Your task to perform on an android device: allow notifications from all sites in the chrome app Image 0: 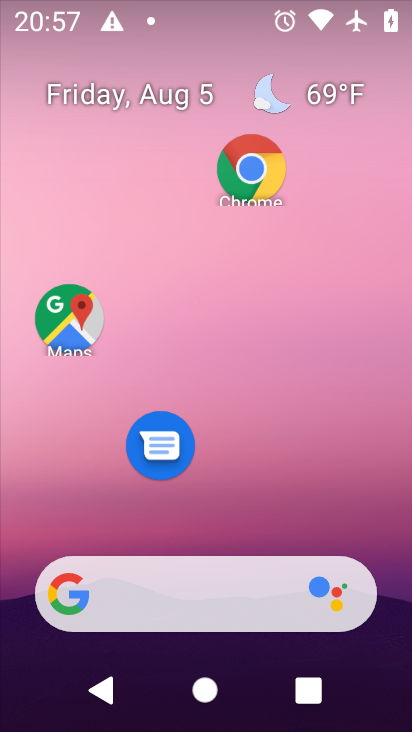
Step 0: click (269, 184)
Your task to perform on an android device: allow notifications from all sites in the chrome app Image 1: 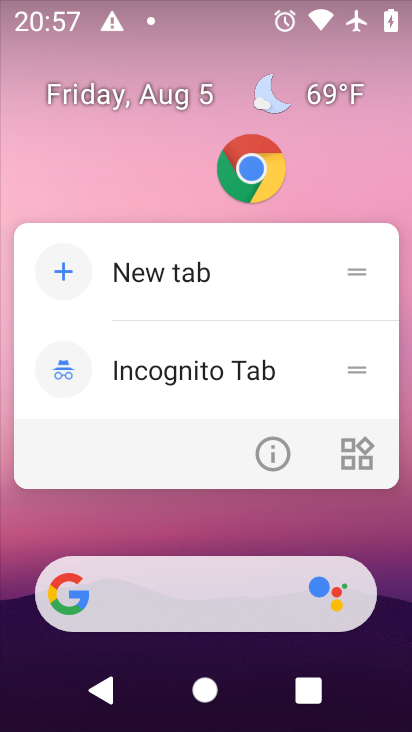
Step 1: click (269, 183)
Your task to perform on an android device: allow notifications from all sites in the chrome app Image 2: 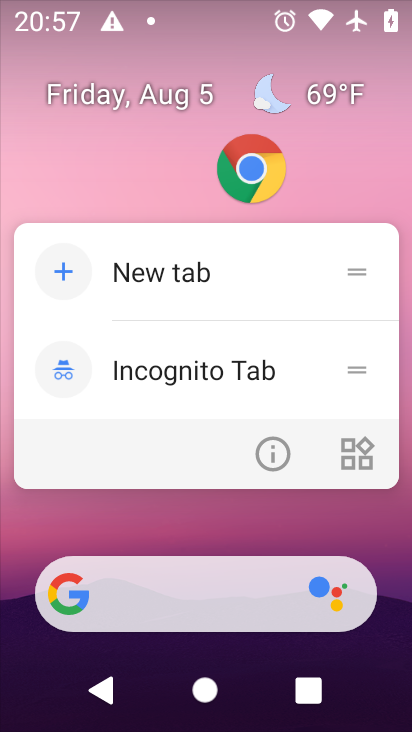
Step 2: click (247, 165)
Your task to perform on an android device: allow notifications from all sites in the chrome app Image 3: 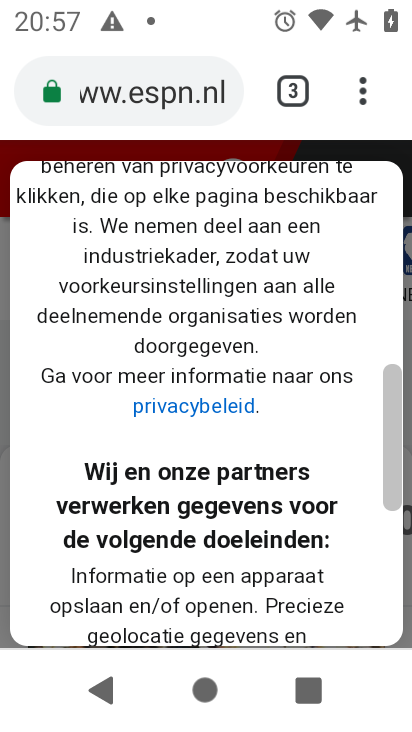
Step 3: click (359, 91)
Your task to perform on an android device: allow notifications from all sites in the chrome app Image 4: 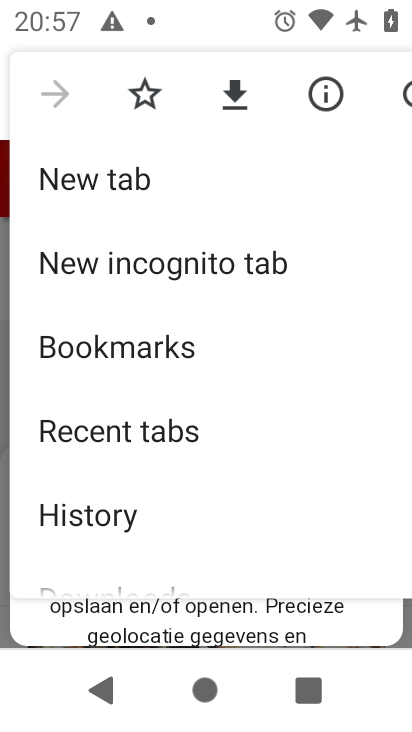
Step 4: drag from (160, 570) to (181, 229)
Your task to perform on an android device: allow notifications from all sites in the chrome app Image 5: 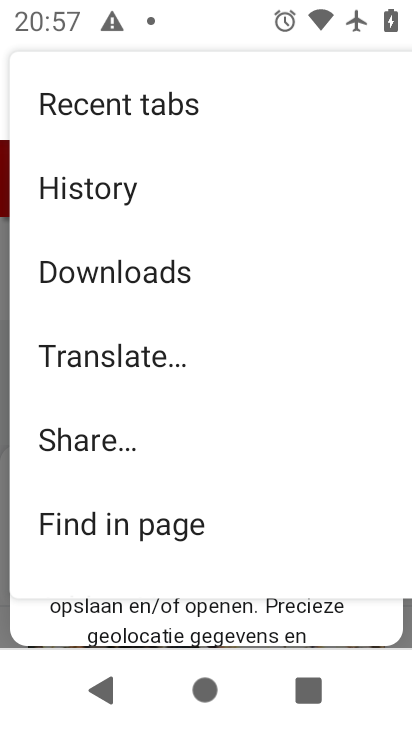
Step 5: drag from (168, 515) to (219, 214)
Your task to perform on an android device: allow notifications from all sites in the chrome app Image 6: 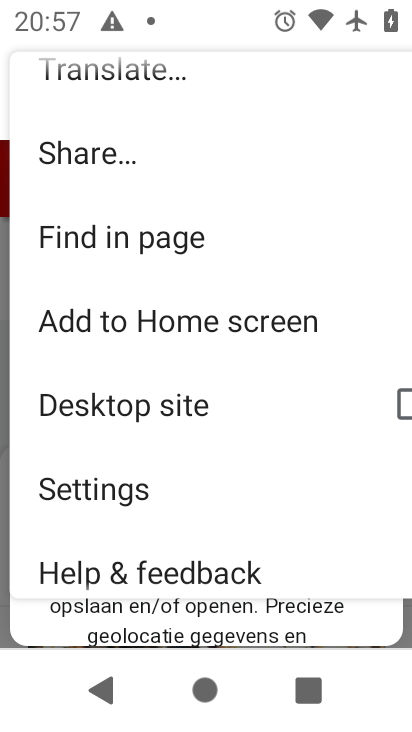
Step 6: click (144, 483)
Your task to perform on an android device: allow notifications from all sites in the chrome app Image 7: 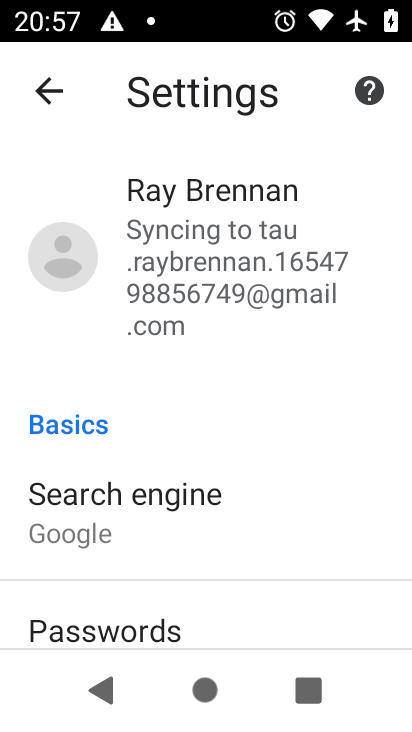
Step 7: drag from (196, 562) to (223, 217)
Your task to perform on an android device: allow notifications from all sites in the chrome app Image 8: 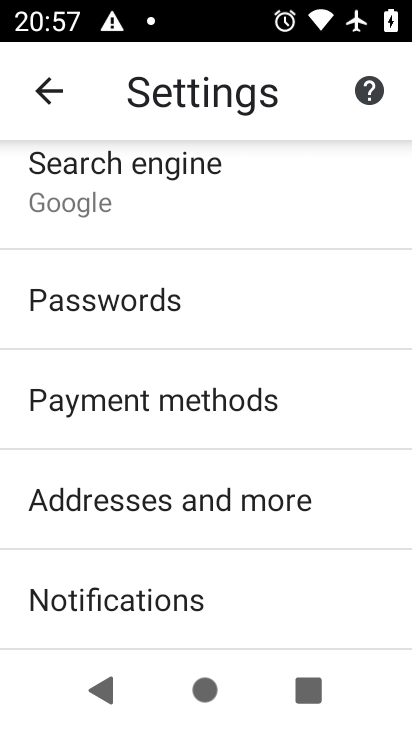
Step 8: drag from (174, 583) to (181, 224)
Your task to perform on an android device: allow notifications from all sites in the chrome app Image 9: 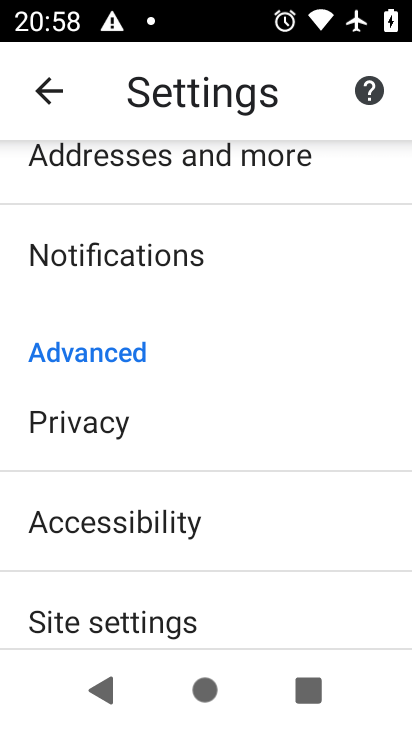
Step 9: click (181, 607)
Your task to perform on an android device: allow notifications from all sites in the chrome app Image 10: 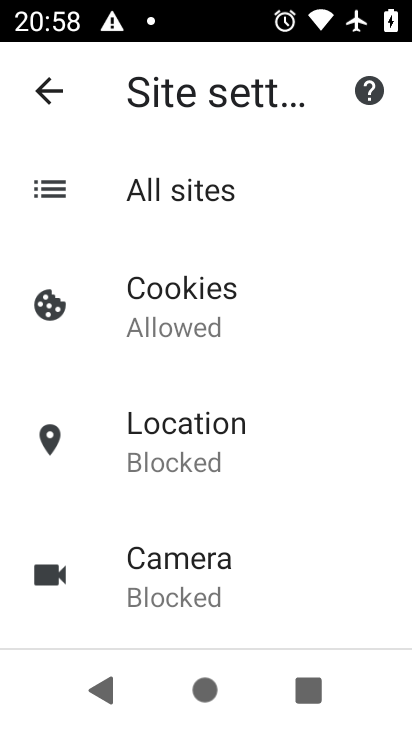
Step 10: click (249, 516)
Your task to perform on an android device: allow notifications from all sites in the chrome app Image 11: 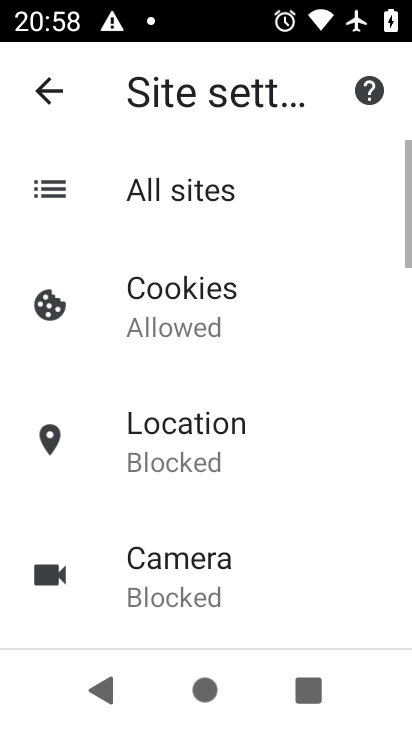
Step 11: click (215, 183)
Your task to perform on an android device: allow notifications from all sites in the chrome app Image 12: 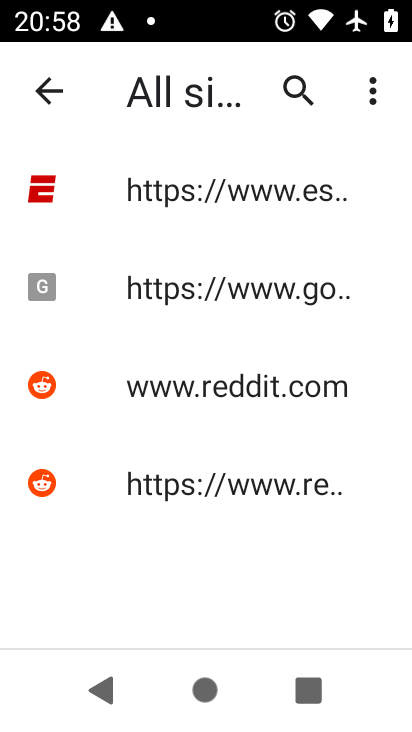
Step 12: click (247, 282)
Your task to perform on an android device: allow notifications from all sites in the chrome app Image 13: 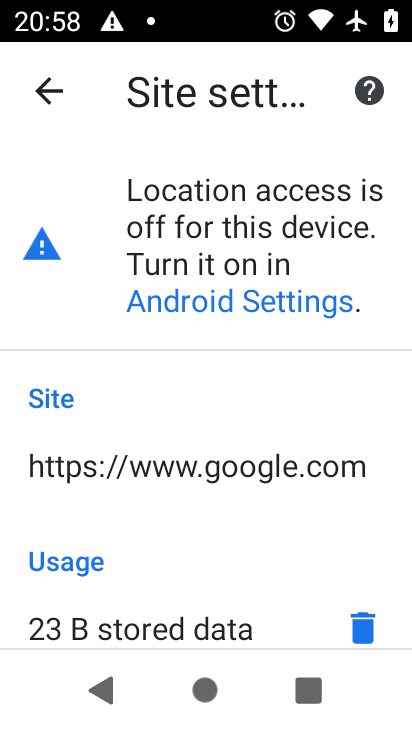
Step 13: drag from (190, 543) to (212, 228)
Your task to perform on an android device: allow notifications from all sites in the chrome app Image 14: 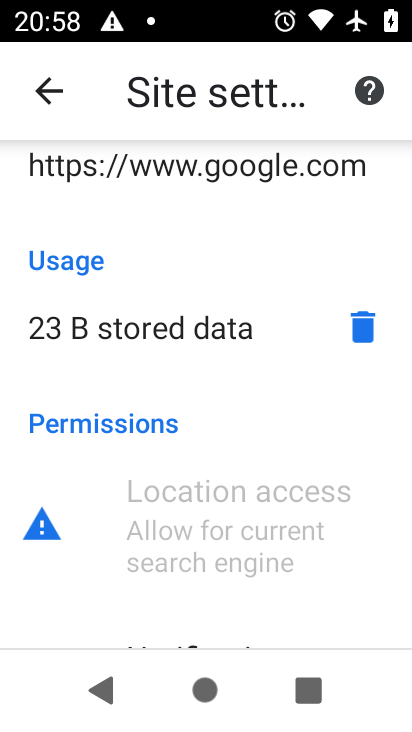
Step 14: drag from (191, 559) to (211, 252)
Your task to perform on an android device: allow notifications from all sites in the chrome app Image 15: 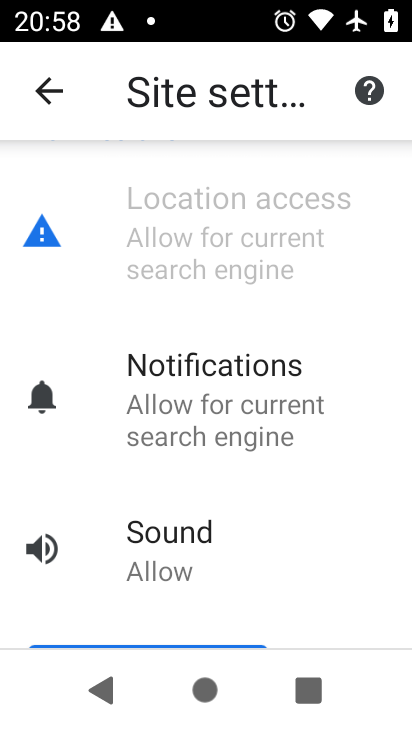
Step 15: click (211, 405)
Your task to perform on an android device: allow notifications from all sites in the chrome app Image 16: 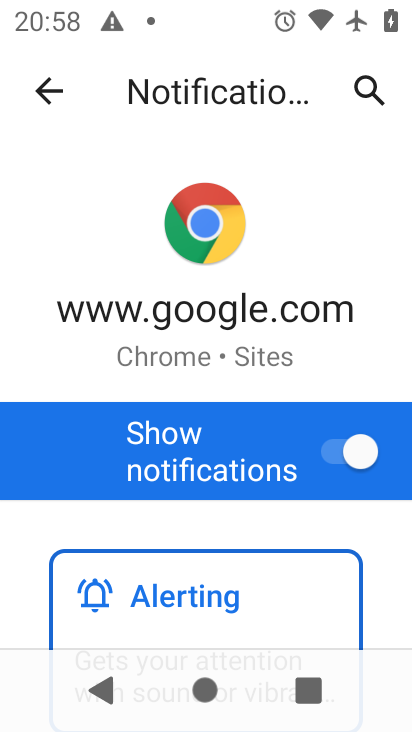
Step 16: task complete